Your task to perform on an android device: Open the stopwatch Image 0: 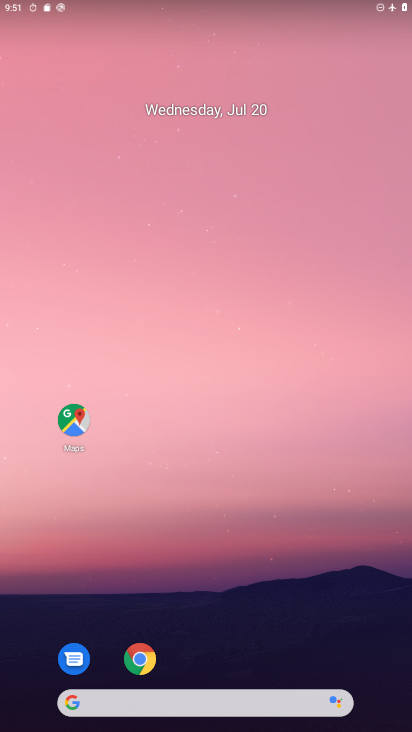
Step 0: drag from (260, 653) to (245, 26)
Your task to perform on an android device: Open the stopwatch Image 1: 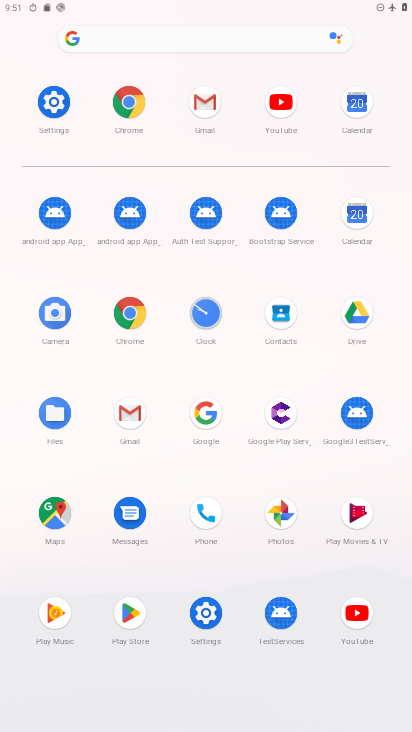
Step 1: click (205, 315)
Your task to perform on an android device: Open the stopwatch Image 2: 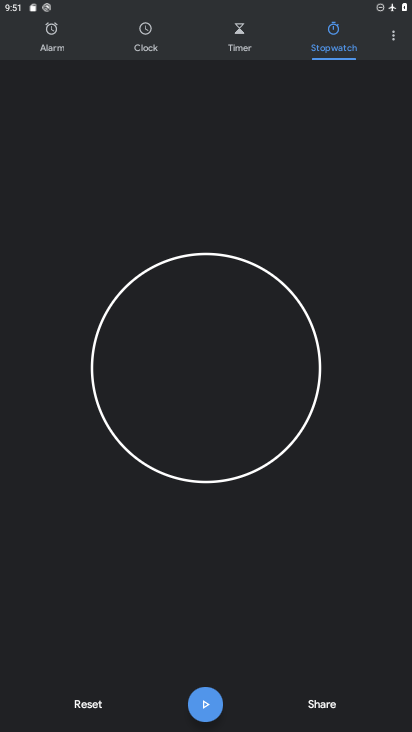
Step 2: task complete